Your task to perform on an android device: Search for pizza restaurants on Maps Image 0: 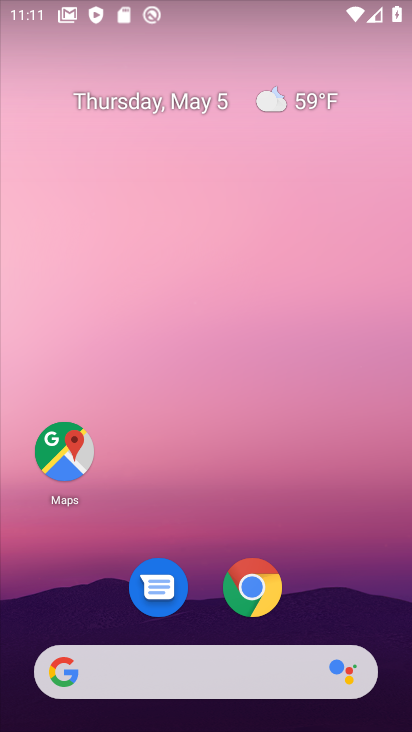
Step 0: click (75, 462)
Your task to perform on an android device: Search for pizza restaurants on Maps Image 1: 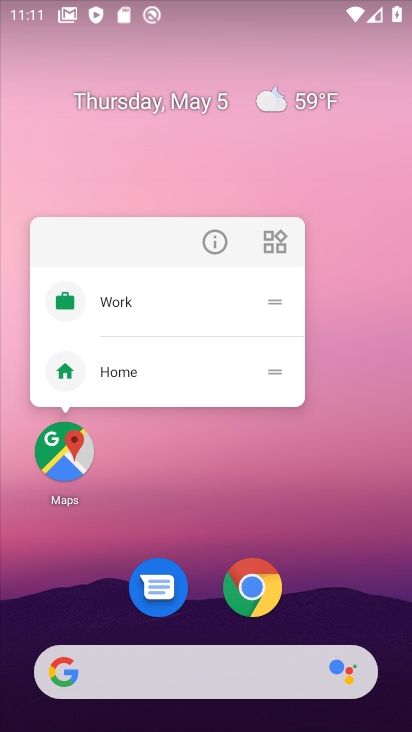
Step 1: click (73, 461)
Your task to perform on an android device: Search for pizza restaurants on Maps Image 2: 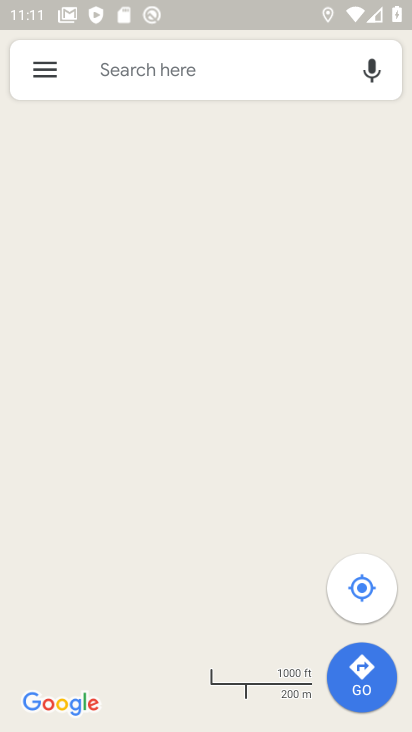
Step 2: click (217, 79)
Your task to perform on an android device: Search for pizza restaurants on Maps Image 3: 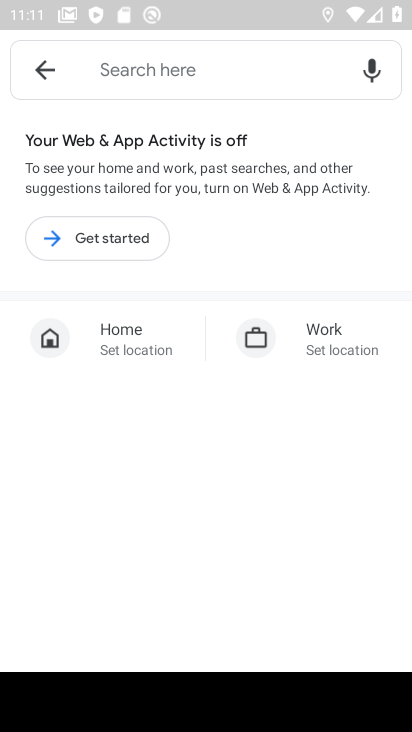
Step 3: click (139, 80)
Your task to perform on an android device: Search for pizza restaurants on Maps Image 4: 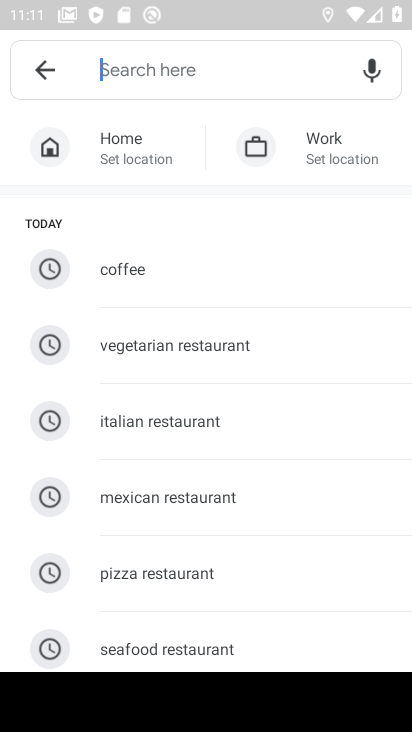
Step 4: type "pizza restaurants"
Your task to perform on an android device: Search for pizza restaurants on Maps Image 5: 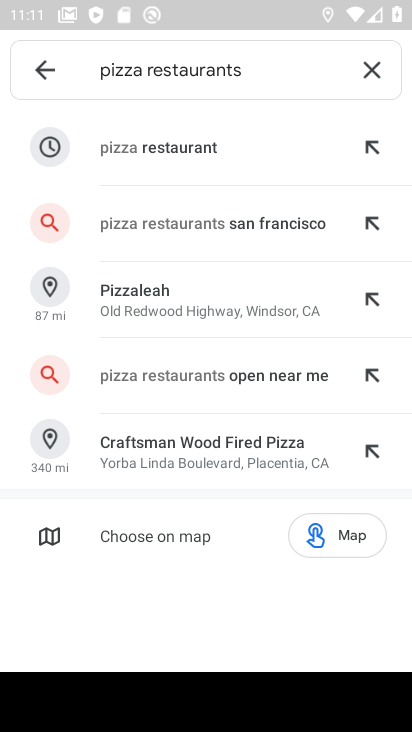
Step 5: click (204, 153)
Your task to perform on an android device: Search for pizza restaurants on Maps Image 6: 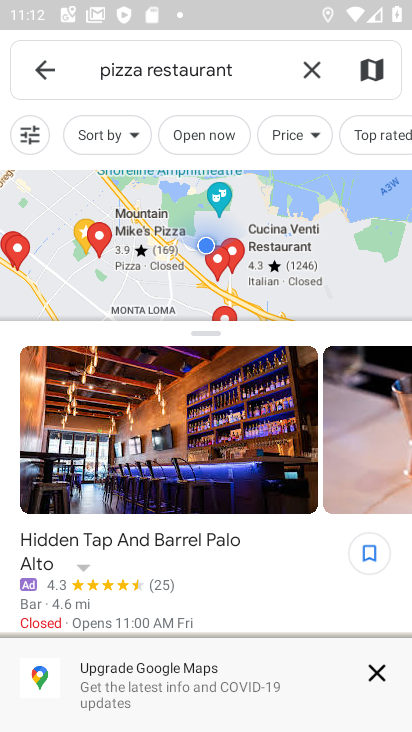
Step 6: click (380, 684)
Your task to perform on an android device: Search for pizza restaurants on Maps Image 7: 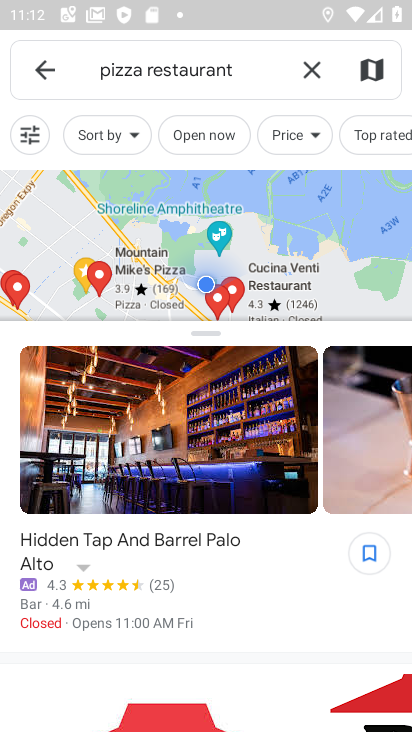
Step 7: task complete